Your task to perform on an android device: toggle sleep mode Image 0: 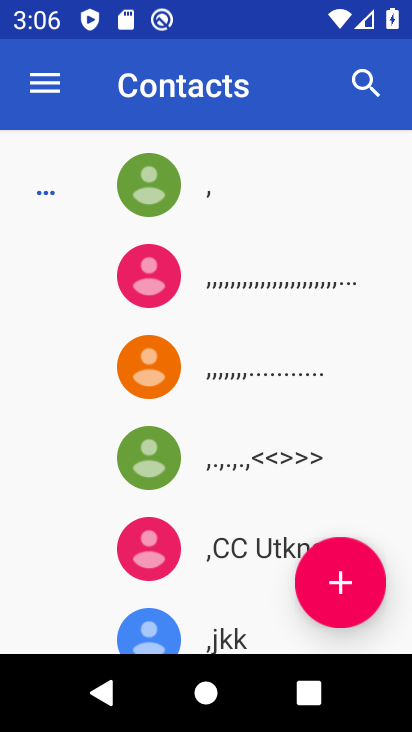
Step 0: press home button
Your task to perform on an android device: toggle sleep mode Image 1: 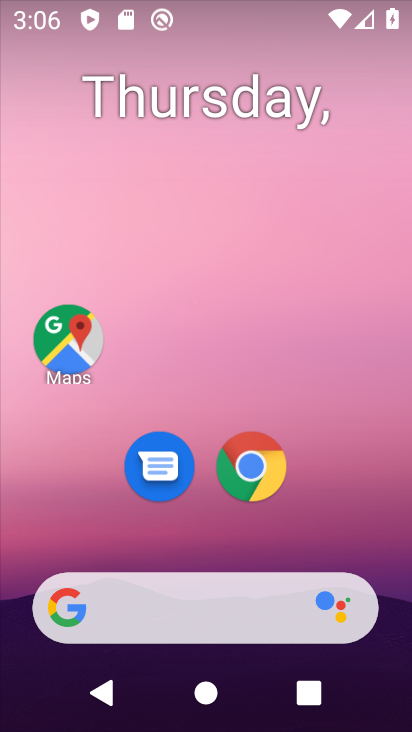
Step 1: drag from (210, 543) to (221, 92)
Your task to perform on an android device: toggle sleep mode Image 2: 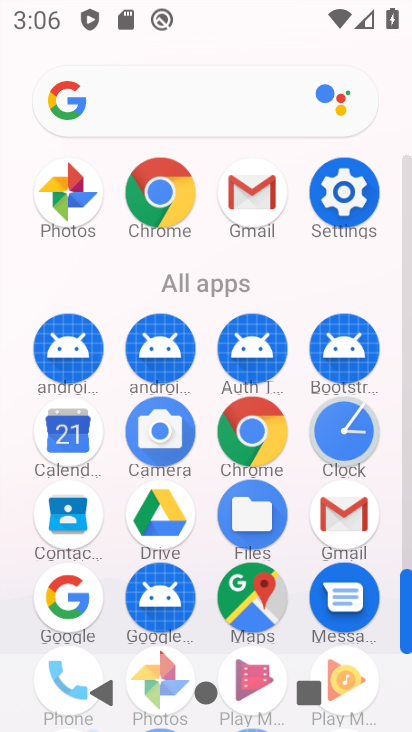
Step 2: click (330, 196)
Your task to perform on an android device: toggle sleep mode Image 3: 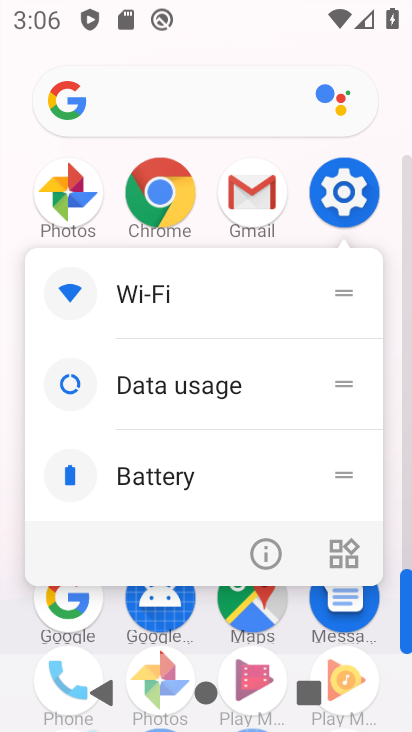
Step 3: click (335, 173)
Your task to perform on an android device: toggle sleep mode Image 4: 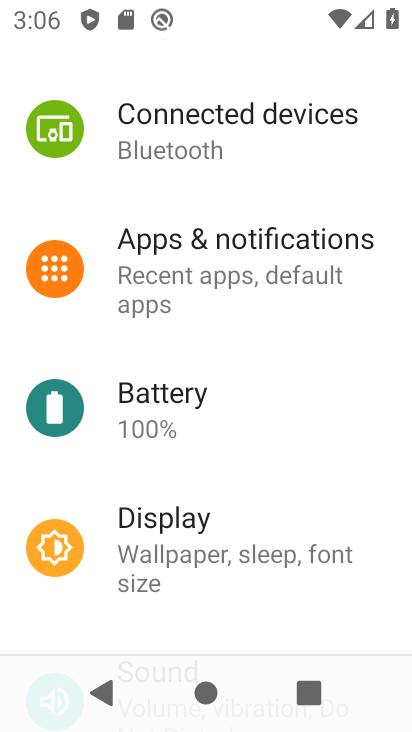
Step 4: task complete